Your task to perform on an android device: What is the average speed of a car? Image 0: 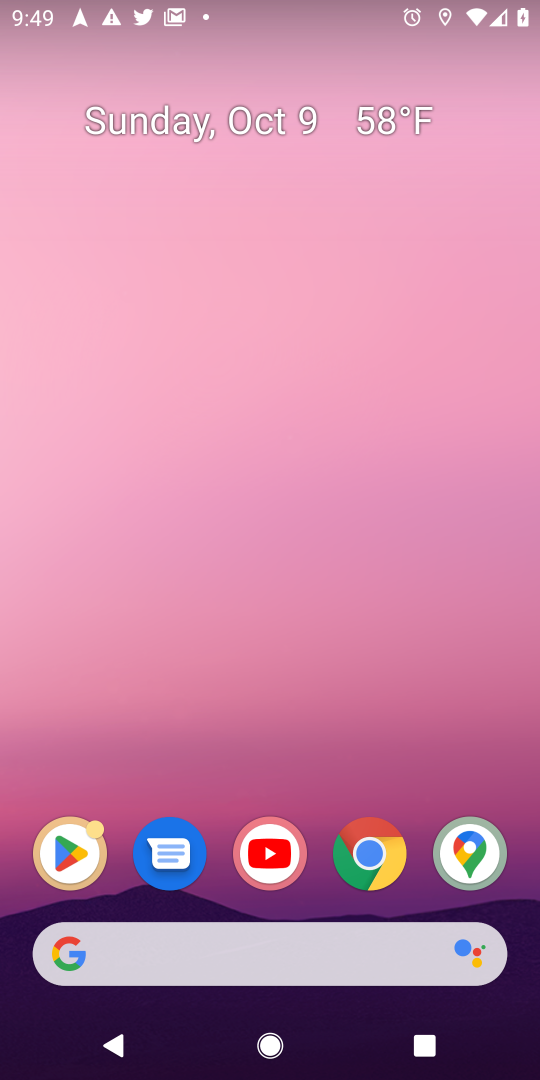
Step 0: click (394, 863)
Your task to perform on an android device: What is the average speed of a car? Image 1: 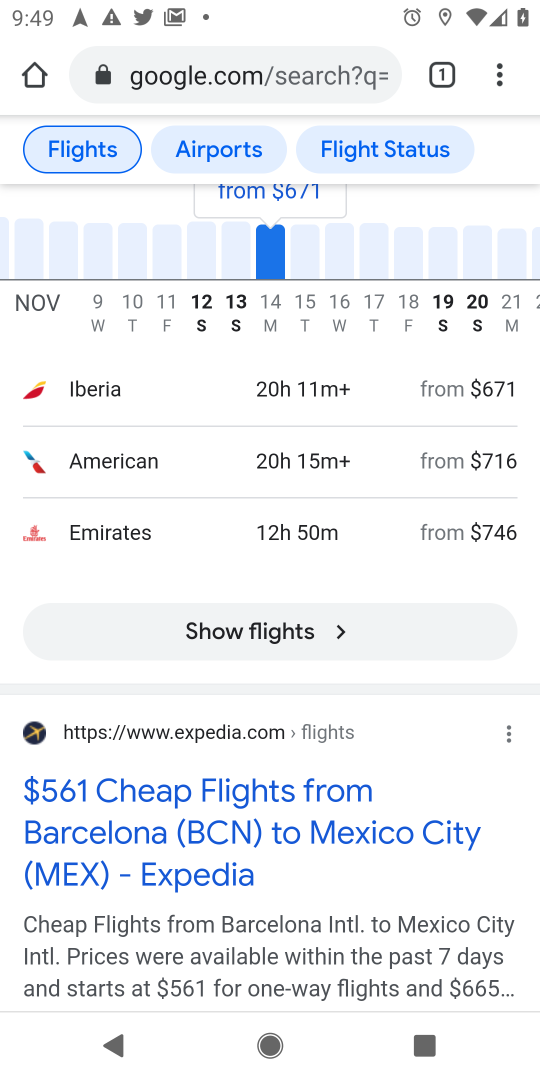
Step 1: click (205, 77)
Your task to perform on an android device: What is the average speed of a car? Image 2: 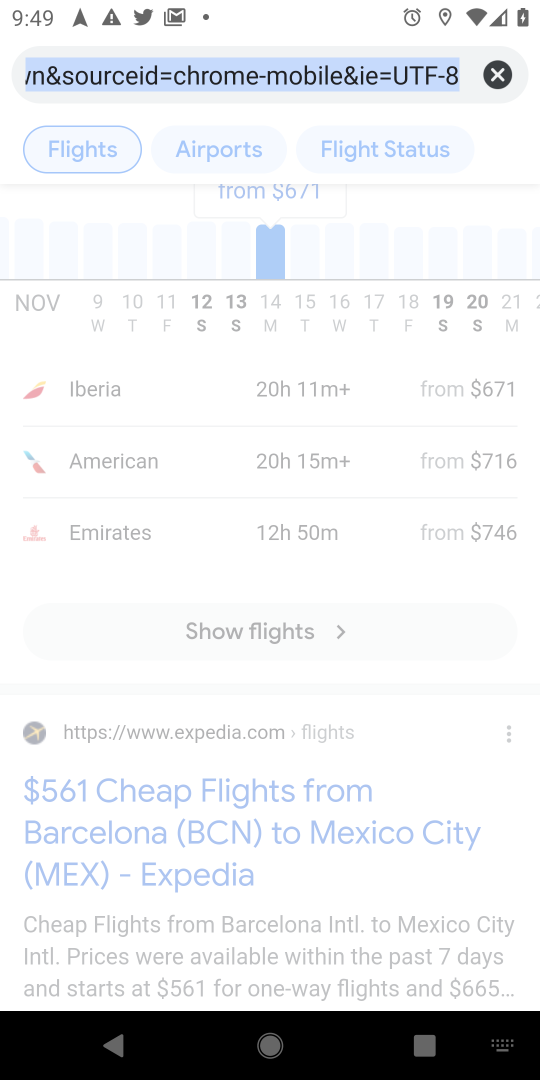
Step 2: type "average speed of a  car"
Your task to perform on an android device: What is the average speed of a car? Image 3: 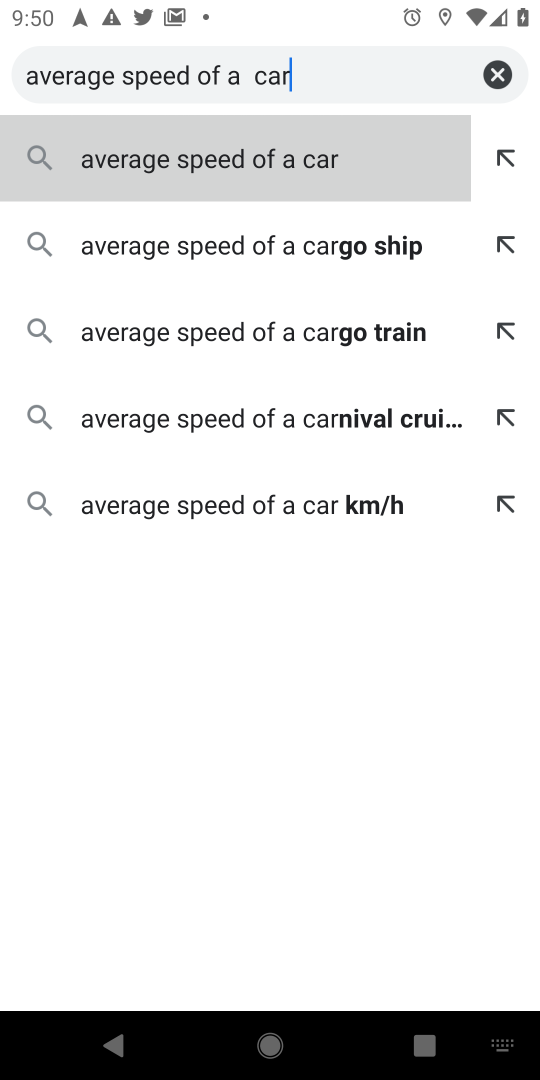
Step 3: click (263, 172)
Your task to perform on an android device: What is the average speed of a car? Image 4: 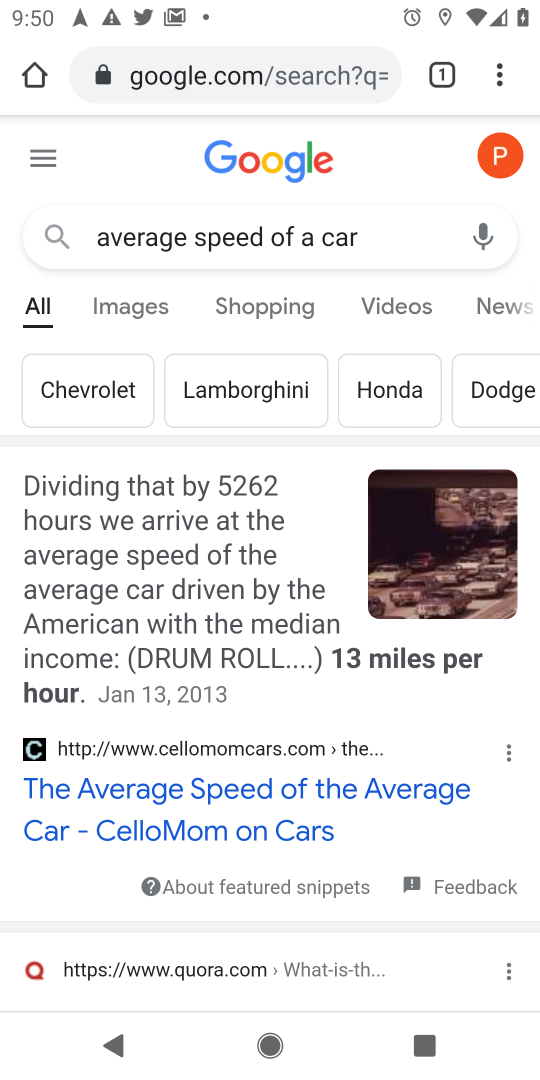
Step 4: task complete